Your task to perform on an android device: open chrome and create a bookmark for the current page Image 0: 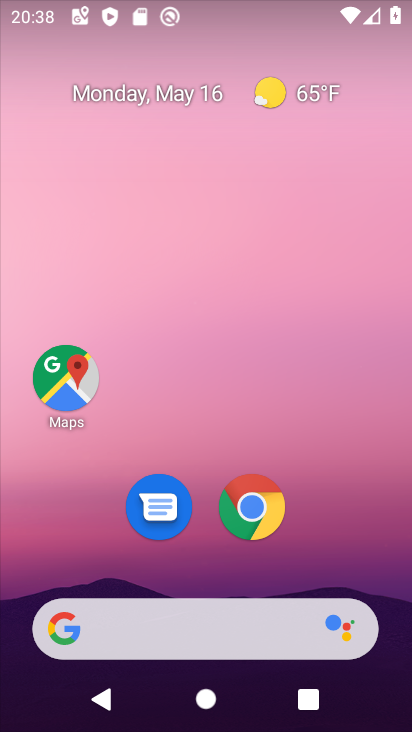
Step 0: click (256, 518)
Your task to perform on an android device: open chrome and create a bookmark for the current page Image 1: 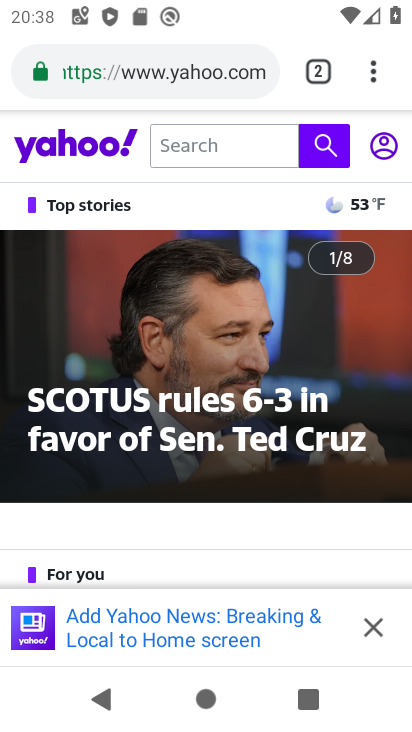
Step 1: click (377, 70)
Your task to perform on an android device: open chrome and create a bookmark for the current page Image 2: 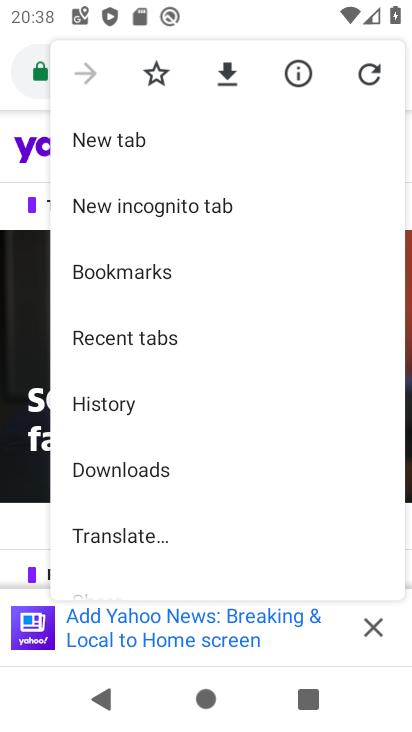
Step 2: click (158, 79)
Your task to perform on an android device: open chrome and create a bookmark for the current page Image 3: 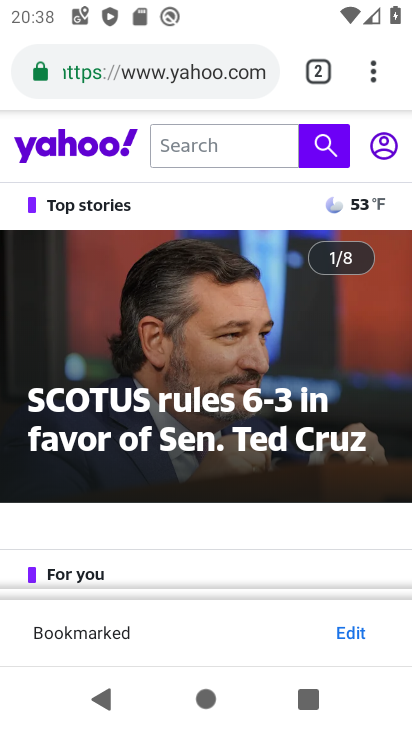
Step 3: task complete